Your task to perform on an android device: Open Google Maps and go to "Timeline" Image 0: 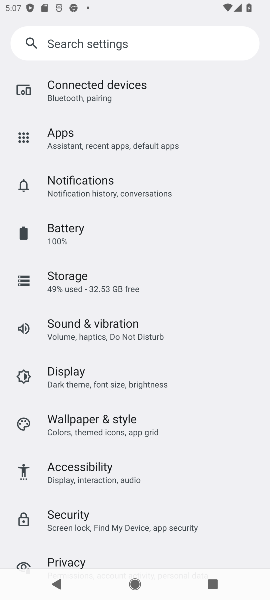
Step 0: press home button
Your task to perform on an android device: Open Google Maps and go to "Timeline" Image 1: 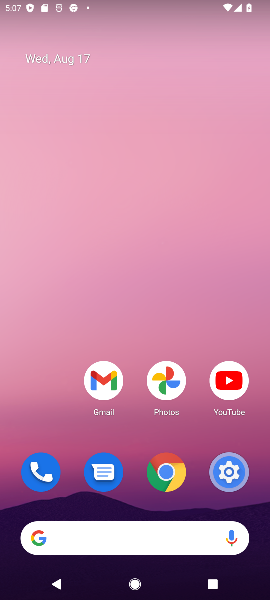
Step 1: drag from (144, 435) to (147, 52)
Your task to perform on an android device: Open Google Maps and go to "Timeline" Image 2: 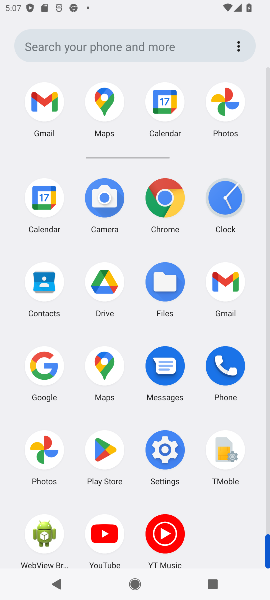
Step 2: click (113, 110)
Your task to perform on an android device: Open Google Maps and go to "Timeline" Image 3: 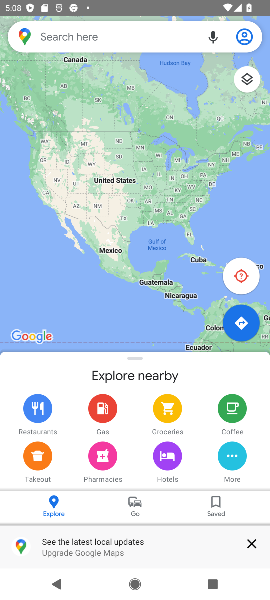
Step 3: click (25, 38)
Your task to perform on an android device: Open Google Maps and go to "Timeline" Image 4: 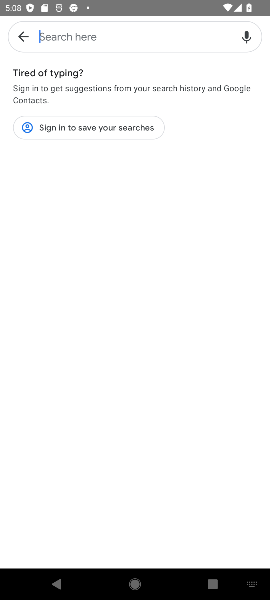
Step 4: click (25, 38)
Your task to perform on an android device: Open Google Maps and go to "Timeline" Image 5: 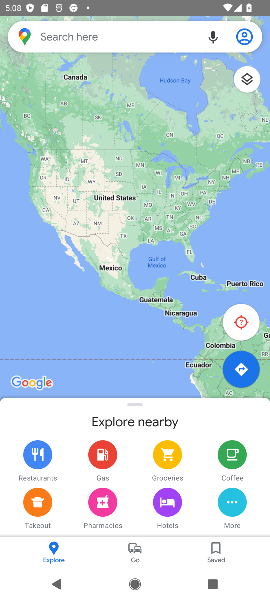
Step 5: click (237, 37)
Your task to perform on an android device: Open Google Maps and go to "Timeline" Image 6: 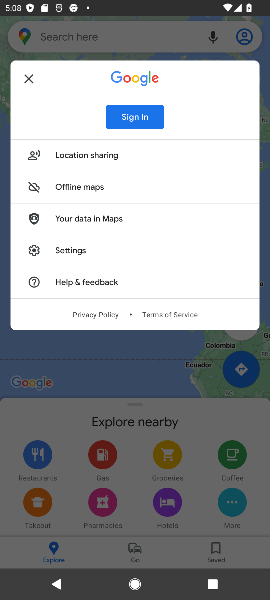
Step 6: click (121, 365)
Your task to perform on an android device: Open Google Maps and go to "Timeline" Image 7: 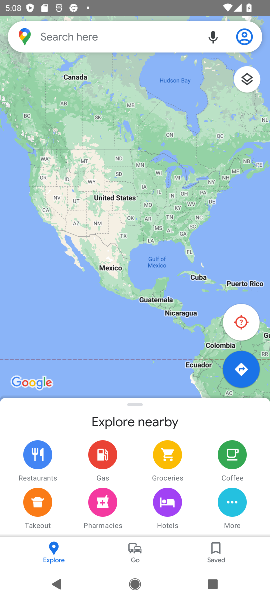
Step 7: click (20, 37)
Your task to perform on an android device: Open Google Maps and go to "Timeline" Image 8: 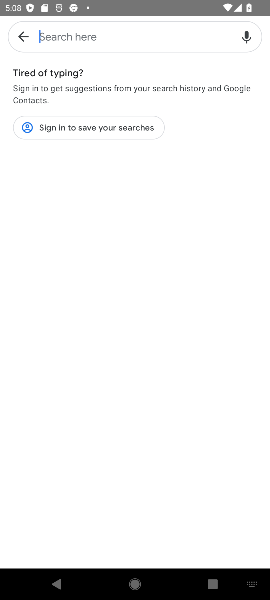
Step 8: click (19, 33)
Your task to perform on an android device: Open Google Maps and go to "Timeline" Image 9: 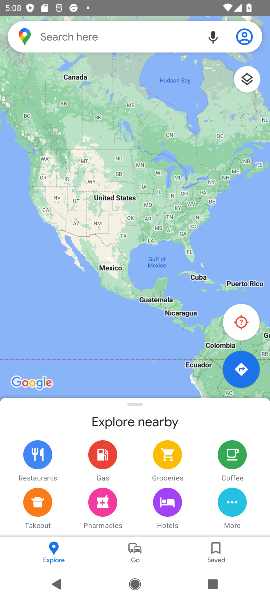
Step 9: click (247, 37)
Your task to perform on an android device: Open Google Maps and go to "Timeline" Image 10: 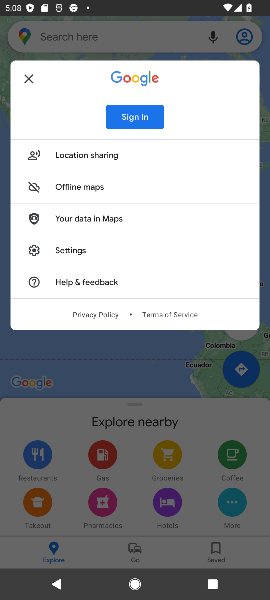
Step 10: task complete